Your task to perform on an android device: toggle show notifications on the lock screen Image 0: 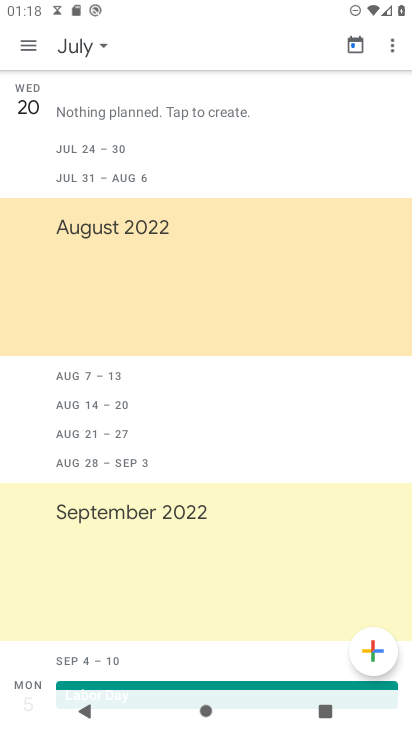
Step 0: press home button
Your task to perform on an android device: toggle show notifications on the lock screen Image 1: 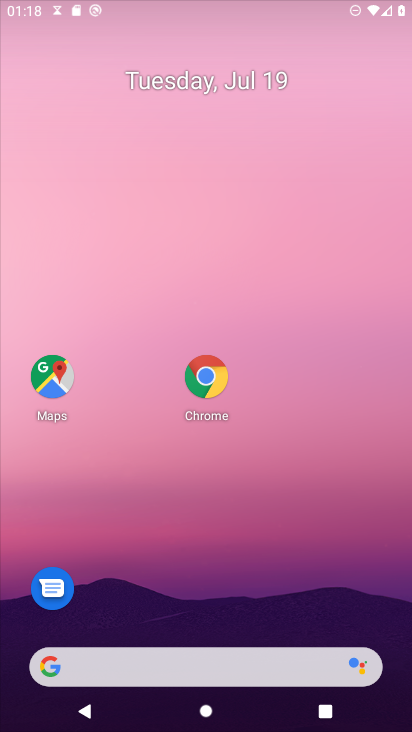
Step 1: drag from (293, 571) to (409, 60)
Your task to perform on an android device: toggle show notifications on the lock screen Image 2: 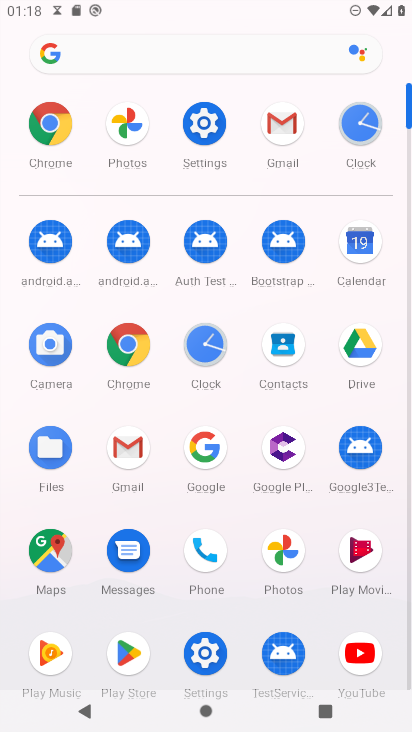
Step 2: click (210, 121)
Your task to perform on an android device: toggle show notifications on the lock screen Image 3: 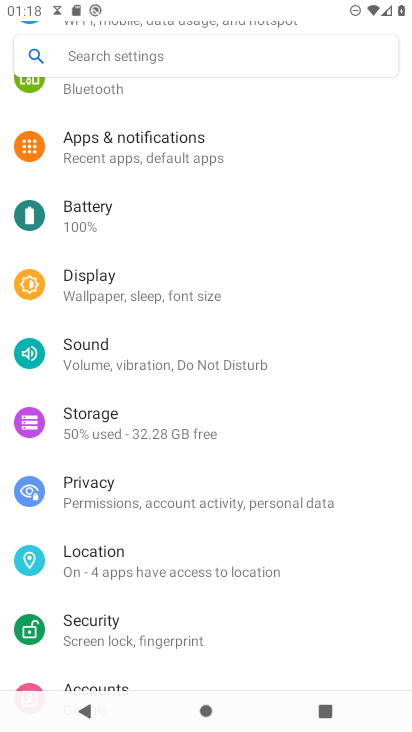
Step 3: click (179, 135)
Your task to perform on an android device: toggle show notifications on the lock screen Image 4: 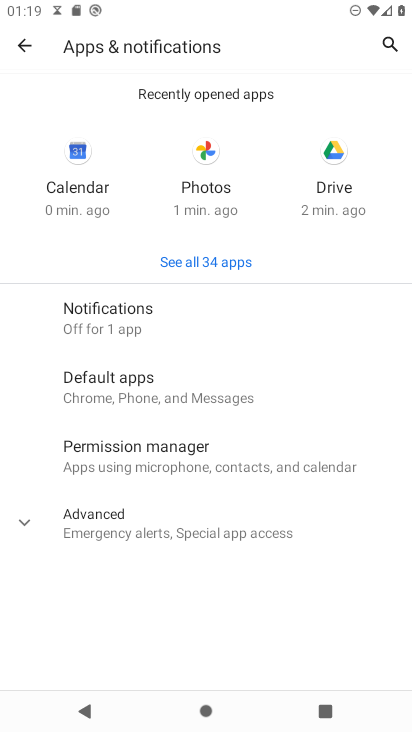
Step 4: click (155, 314)
Your task to perform on an android device: toggle show notifications on the lock screen Image 5: 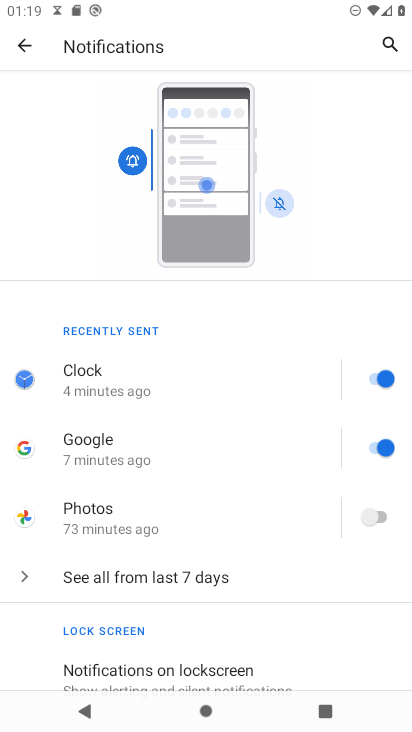
Step 5: click (150, 663)
Your task to perform on an android device: toggle show notifications on the lock screen Image 6: 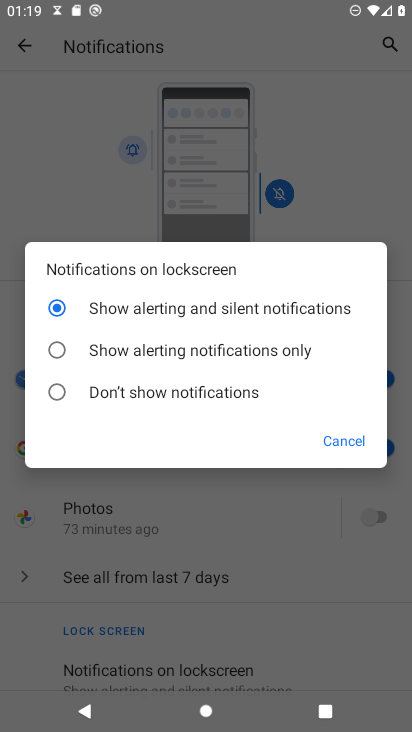
Step 6: click (54, 392)
Your task to perform on an android device: toggle show notifications on the lock screen Image 7: 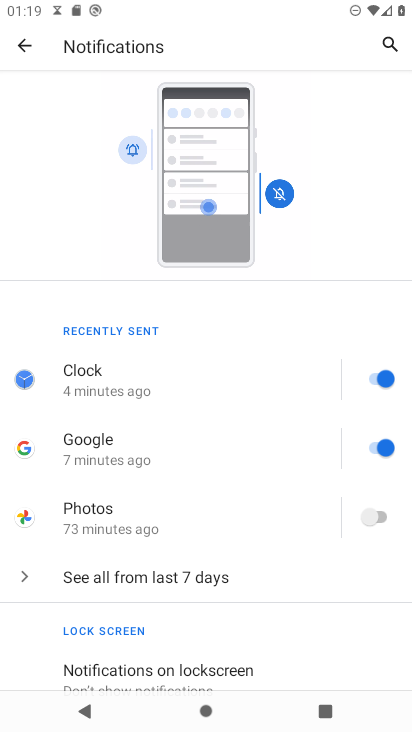
Step 7: task complete